Your task to perform on an android device: Find coffee shops on Maps Image 0: 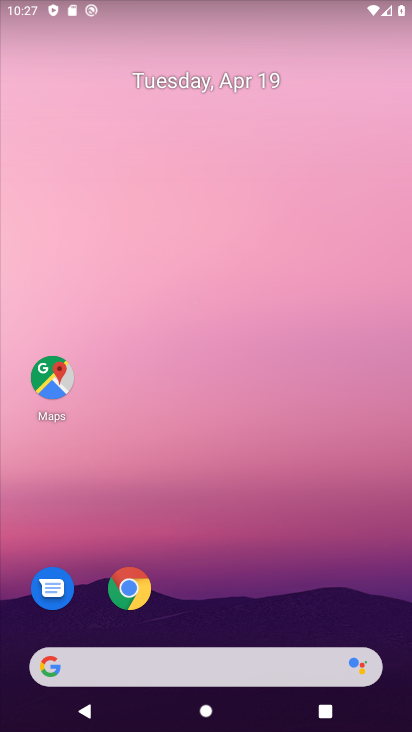
Step 0: click (42, 388)
Your task to perform on an android device: Find coffee shops on Maps Image 1: 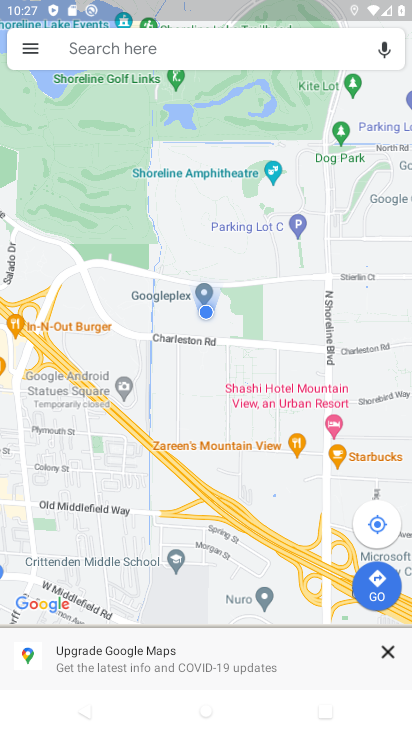
Step 1: click (158, 55)
Your task to perform on an android device: Find coffee shops on Maps Image 2: 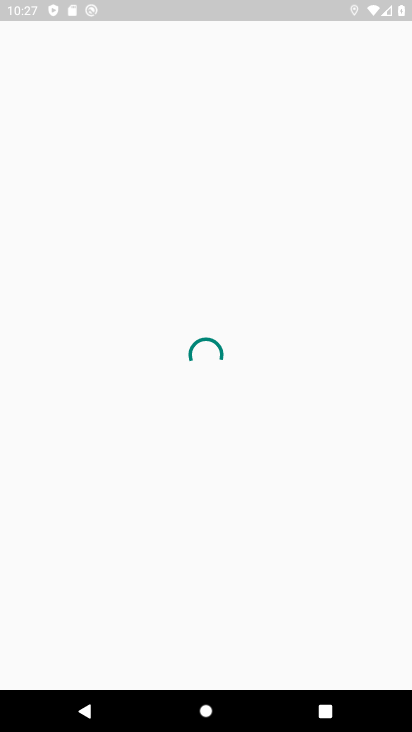
Step 2: click (80, 196)
Your task to perform on an android device: Find coffee shops on Maps Image 3: 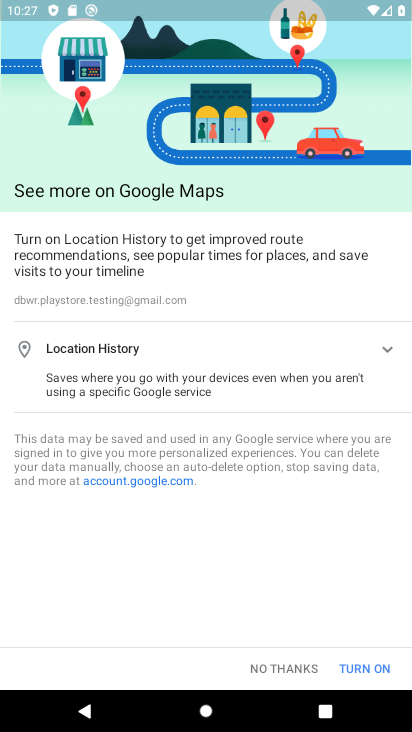
Step 3: click (371, 669)
Your task to perform on an android device: Find coffee shops on Maps Image 4: 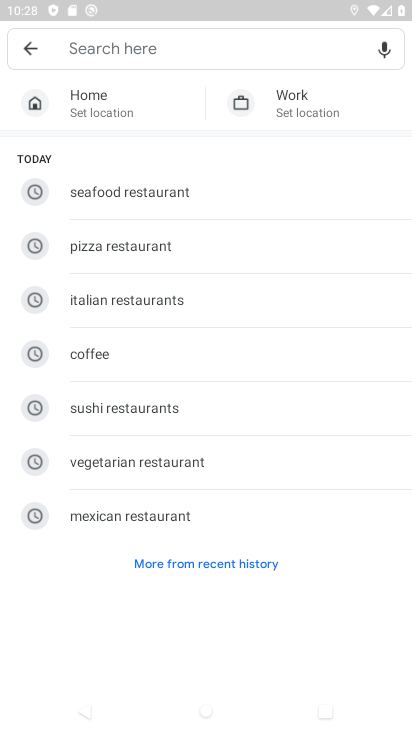
Step 4: click (93, 368)
Your task to perform on an android device: Find coffee shops on Maps Image 5: 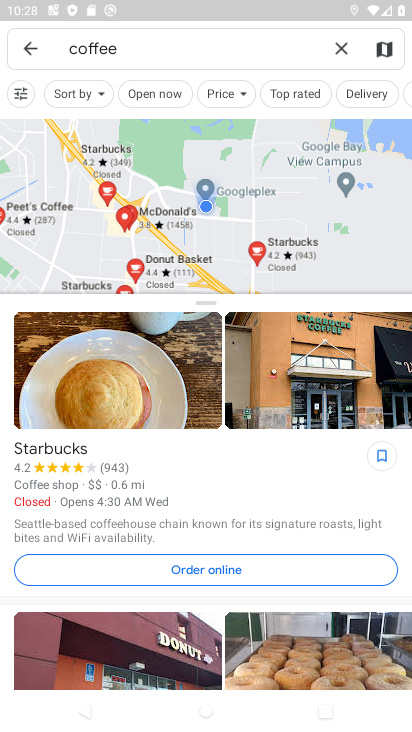
Step 5: task complete